Your task to perform on an android device: Go to settings Image 0: 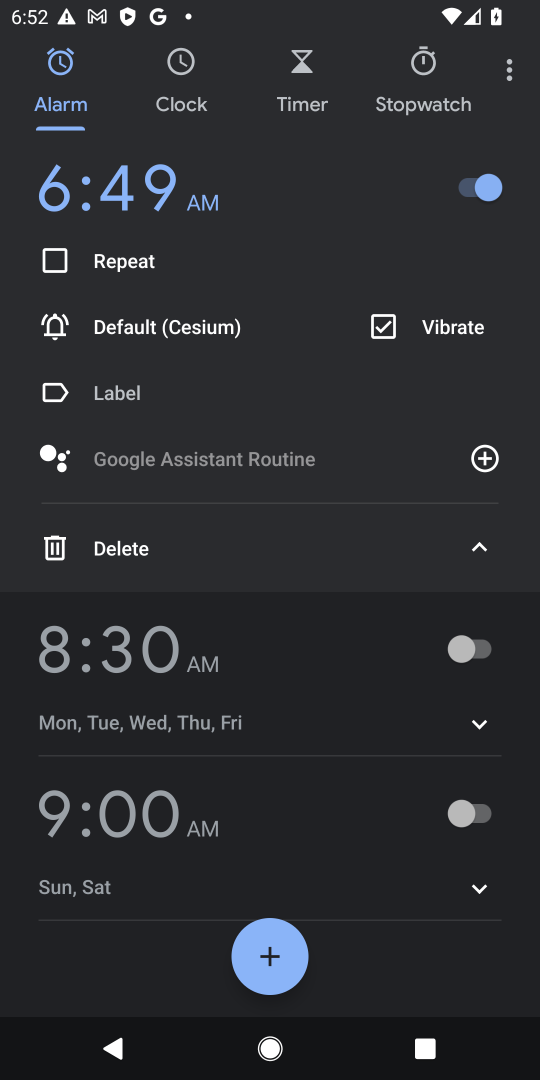
Step 0: press home button
Your task to perform on an android device: Go to settings Image 1: 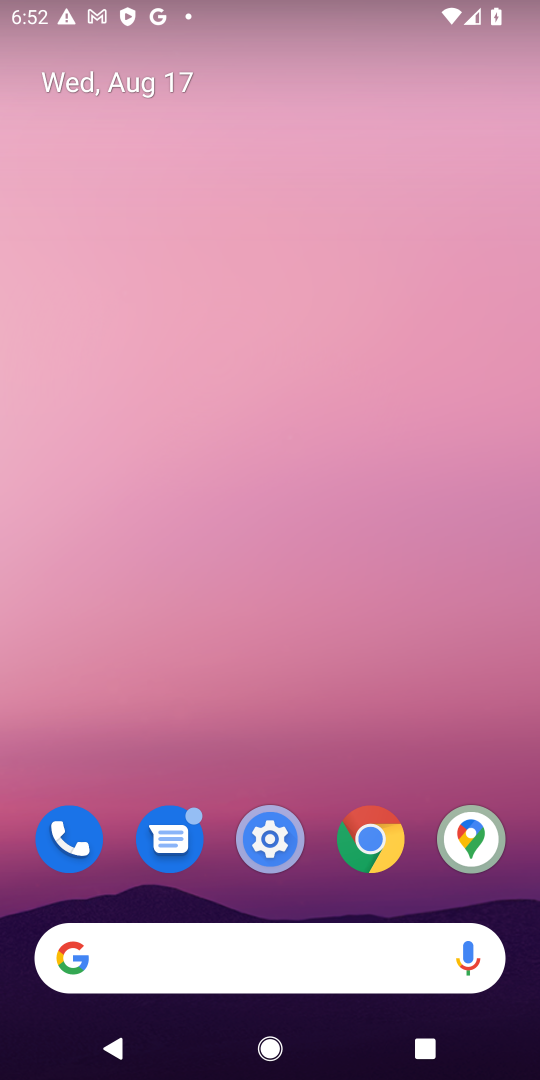
Step 1: click (279, 846)
Your task to perform on an android device: Go to settings Image 2: 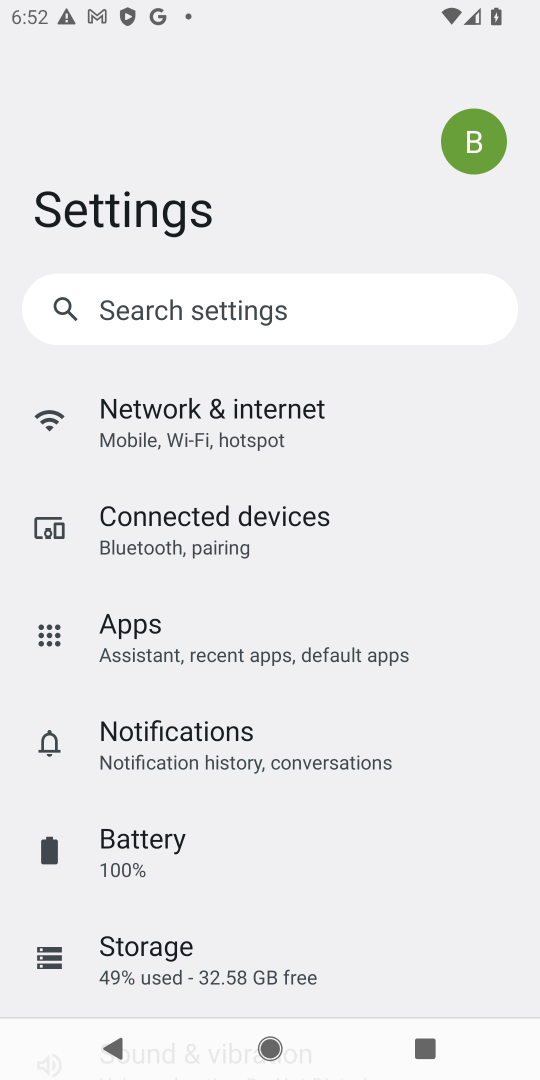
Step 2: task complete